Your task to perform on an android device: set the timer Image 0: 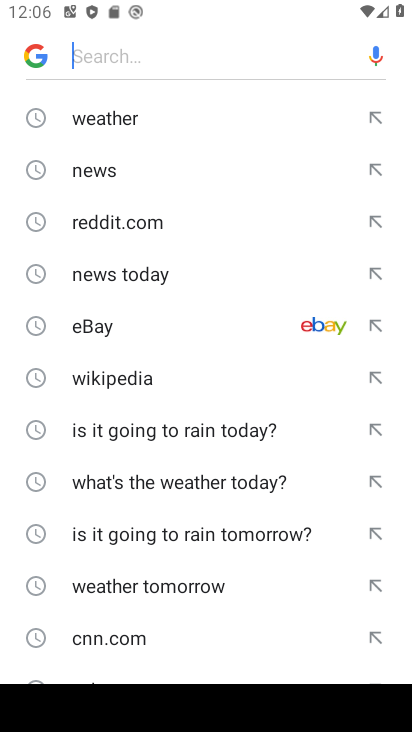
Step 0: press back button
Your task to perform on an android device: set the timer Image 1: 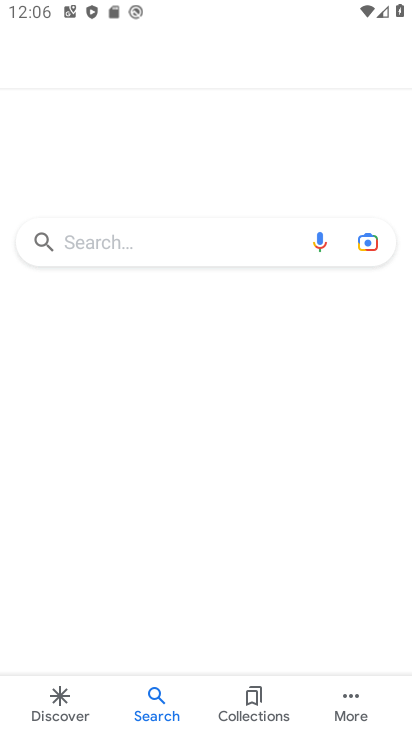
Step 1: press home button
Your task to perform on an android device: set the timer Image 2: 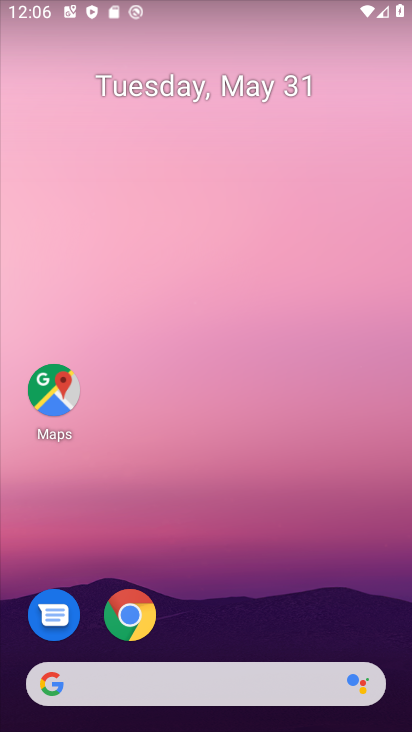
Step 2: drag from (329, 605) to (344, 180)
Your task to perform on an android device: set the timer Image 3: 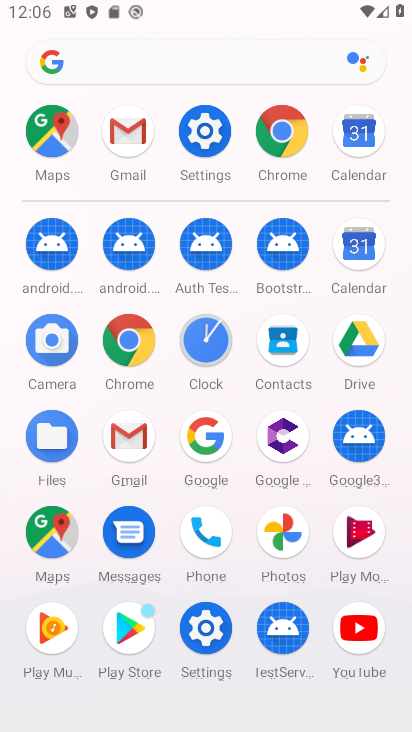
Step 3: click (218, 335)
Your task to perform on an android device: set the timer Image 4: 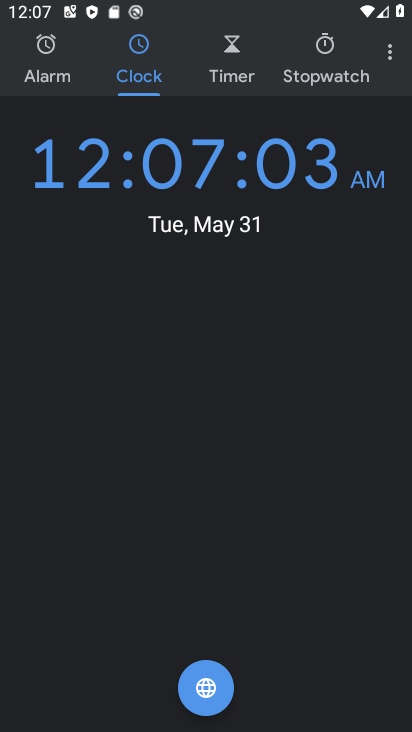
Step 4: click (224, 68)
Your task to perform on an android device: set the timer Image 5: 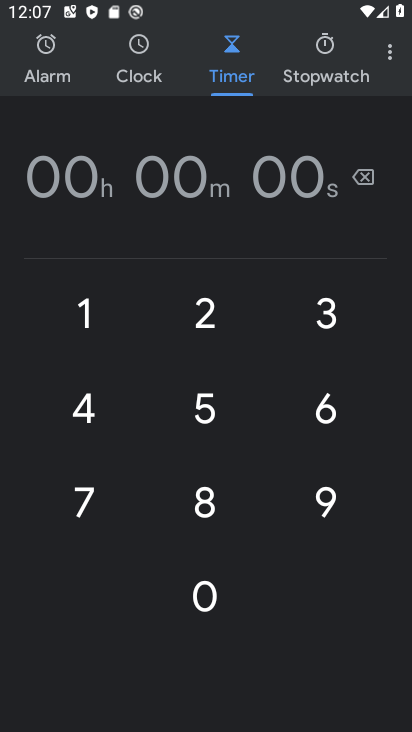
Step 5: click (221, 418)
Your task to perform on an android device: set the timer Image 6: 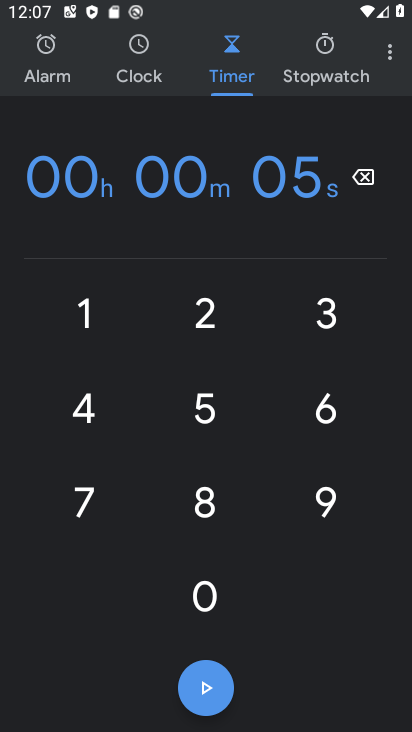
Step 6: task complete